Your task to perform on an android device: delete browsing data in the chrome app Image 0: 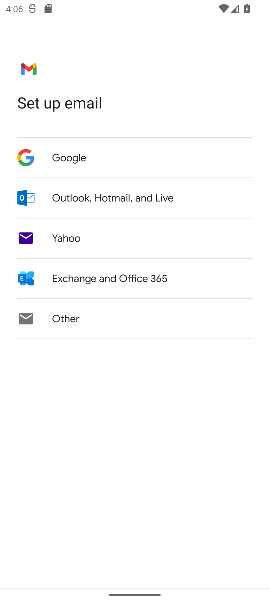
Step 0: press home button
Your task to perform on an android device: delete browsing data in the chrome app Image 1: 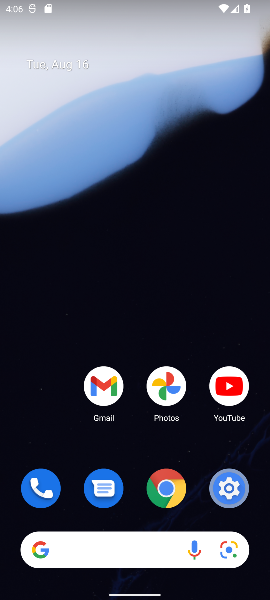
Step 1: drag from (38, 386) to (112, 159)
Your task to perform on an android device: delete browsing data in the chrome app Image 2: 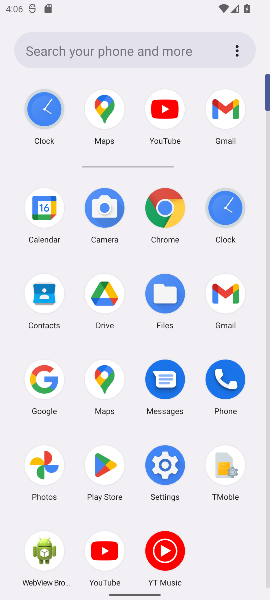
Step 2: click (164, 212)
Your task to perform on an android device: delete browsing data in the chrome app Image 3: 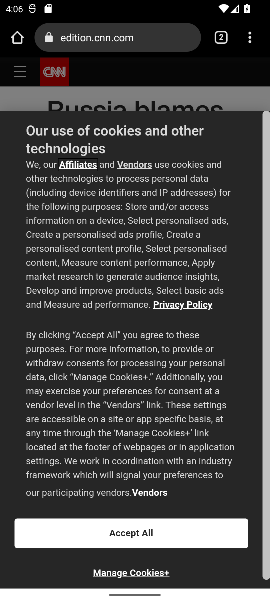
Step 3: task complete